Your task to perform on an android device: Open Chrome and go to settings Image 0: 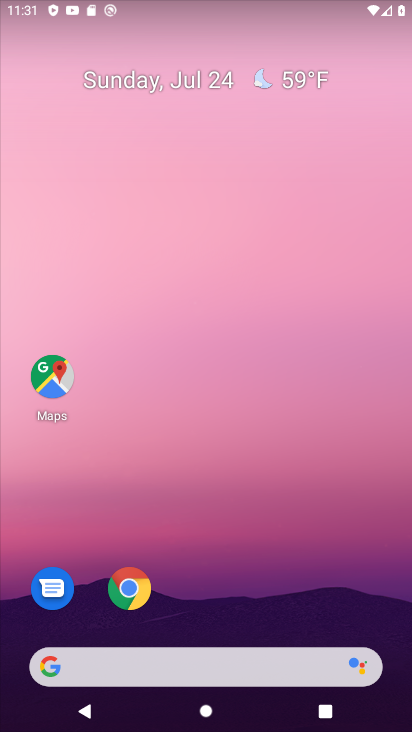
Step 0: drag from (373, 602) to (189, 20)
Your task to perform on an android device: Open Chrome and go to settings Image 1: 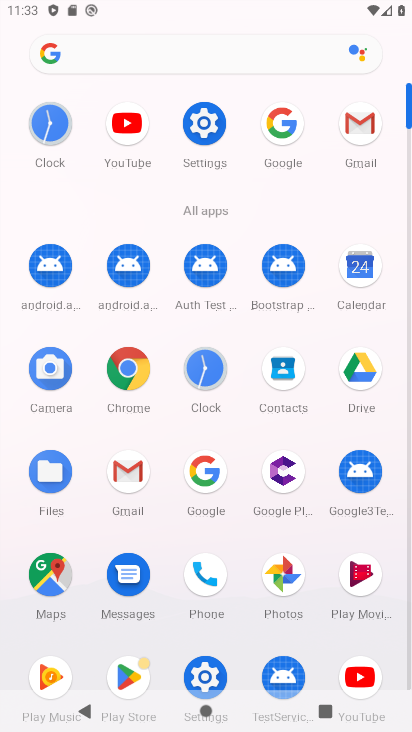
Step 1: click (134, 353)
Your task to perform on an android device: Open Chrome and go to settings Image 2: 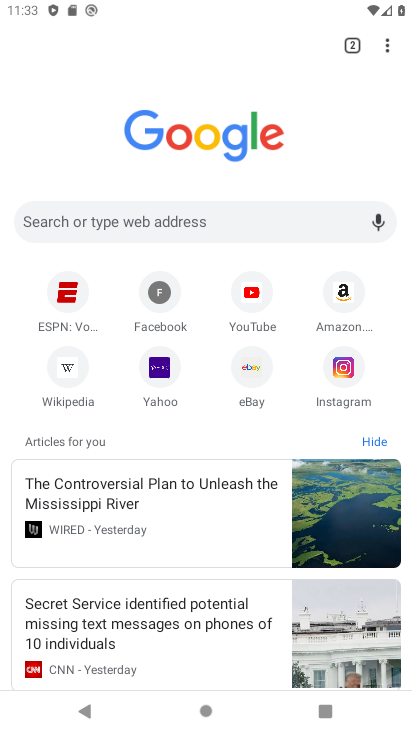
Step 2: click (387, 41)
Your task to perform on an android device: Open Chrome and go to settings Image 3: 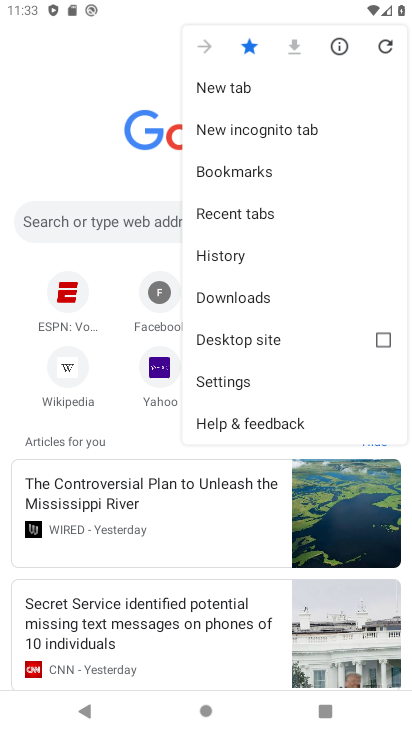
Step 3: click (245, 383)
Your task to perform on an android device: Open Chrome and go to settings Image 4: 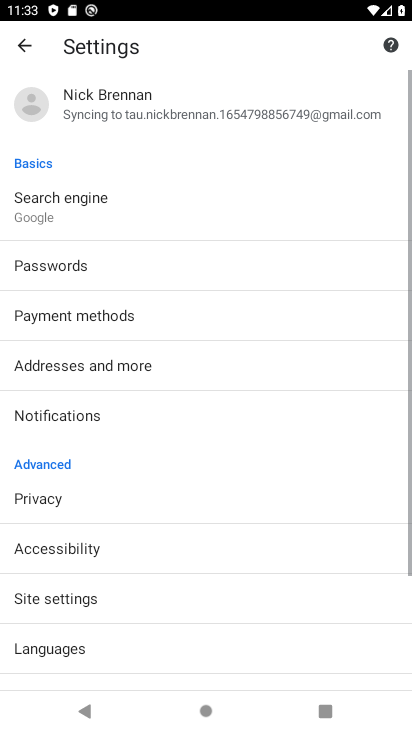
Step 4: task complete